Your task to perform on an android device: check out phone information Image 0: 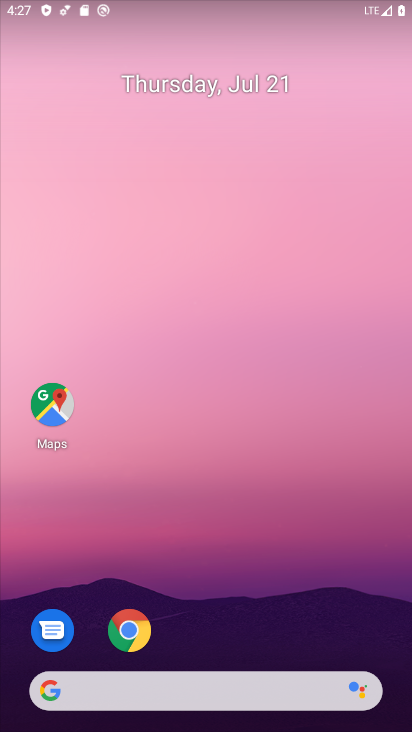
Step 0: drag from (304, 644) to (246, 133)
Your task to perform on an android device: check out phone information Image 1: 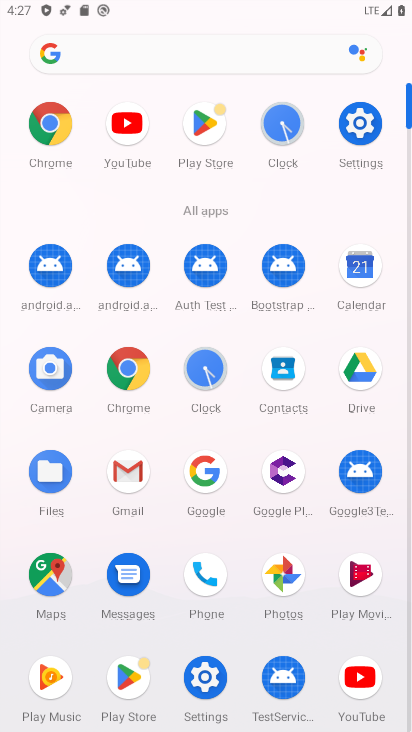
Step 1: click (363, 128)
Your task to perform on an android device: check out phone information Image 2: 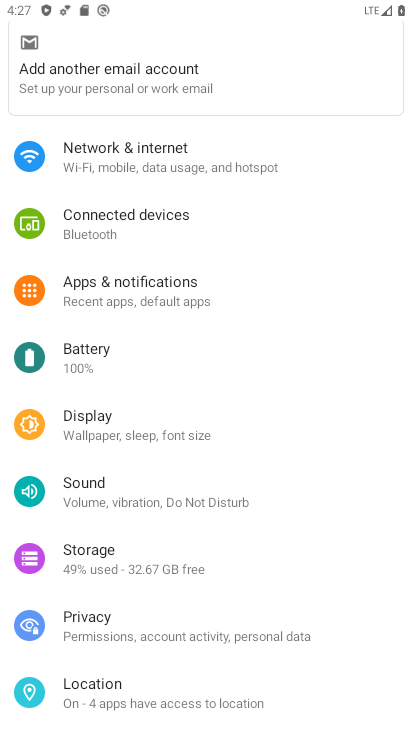
Step 2: drag from (195, 712) to (146, 314)
Your task to perform on an android device: check out phone information Image 3: 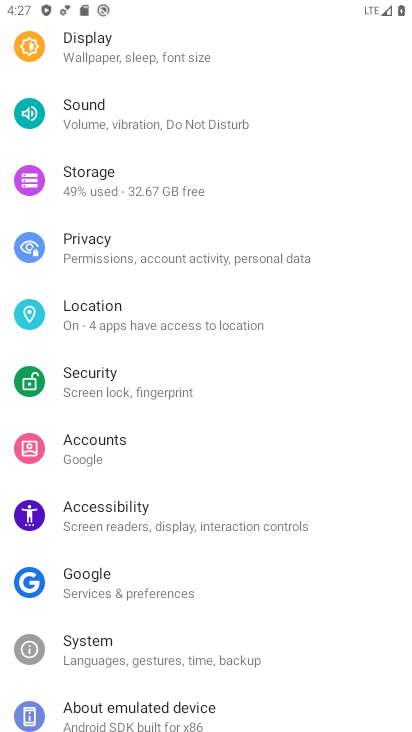
Step 3: drag from (178, 698) to (154, 490)
Your task to perform on an android device: check out phone information Image 4: 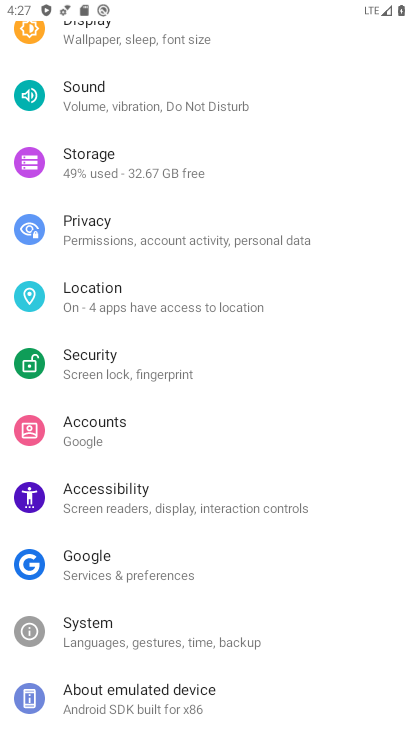
Step 4: click (233, 680)
Your task to perform on an android device: check out phone information Image 5: 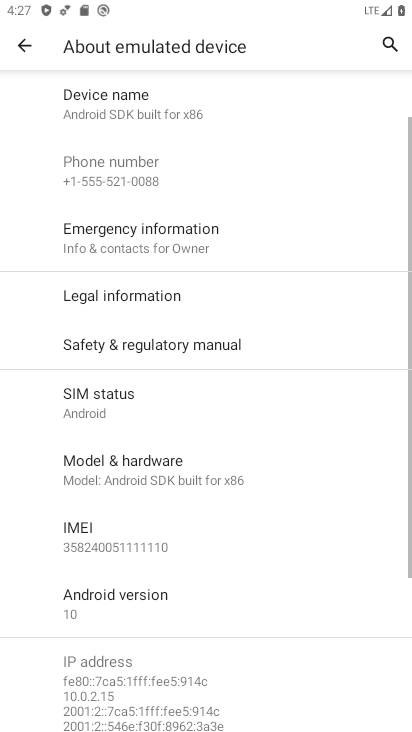
Step 5: click (190, 233)
Your task to perform on an android device: check out phone information Image 6: 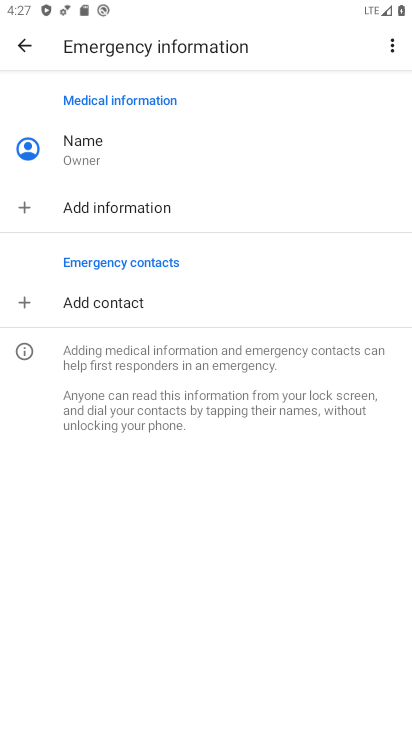
Step 6: task complete